Your task to perform on an android device: Open notification settings Image 0: 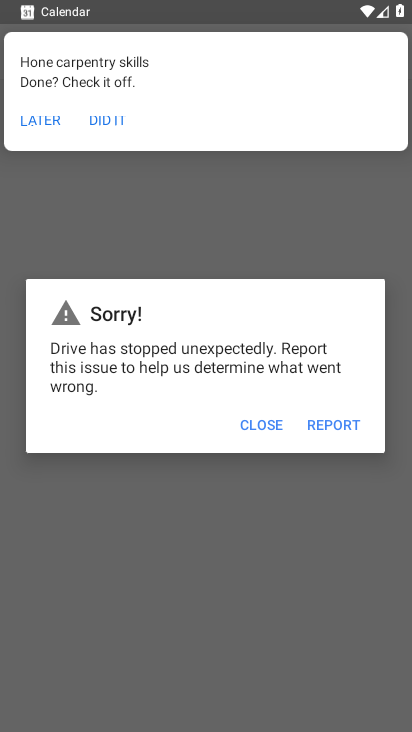
Step 0: press home button
Your task to perform on an android device: Open notification settings Image 1: 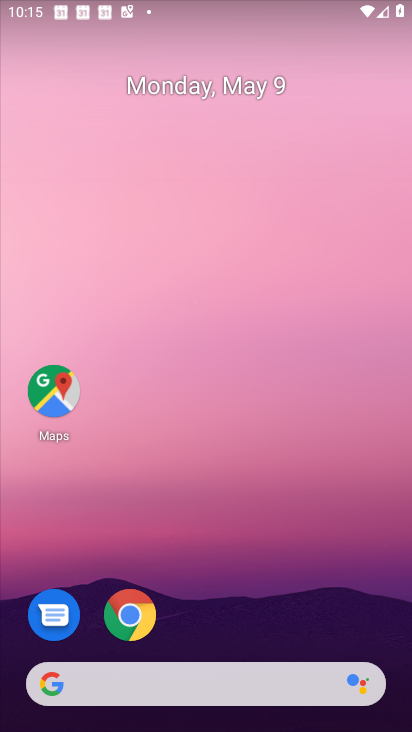
Step 1: drag from (218, 705) to (348, 243)
Your task to perform on an android device: Open notification settings Image 2: 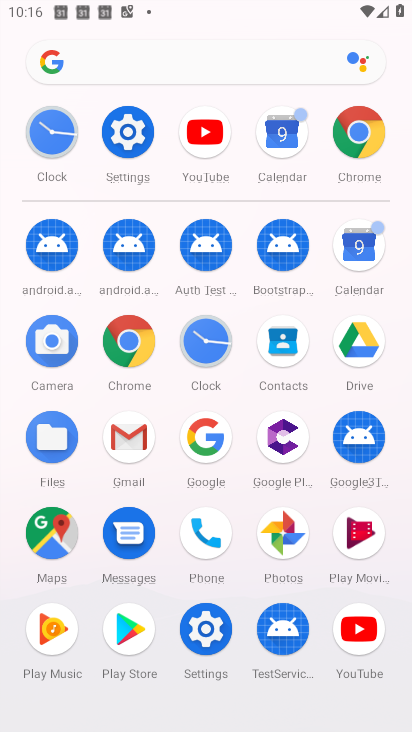
Step 2: click (134, 137)
Your task to perform on an android device: Open notification settings Image 3: 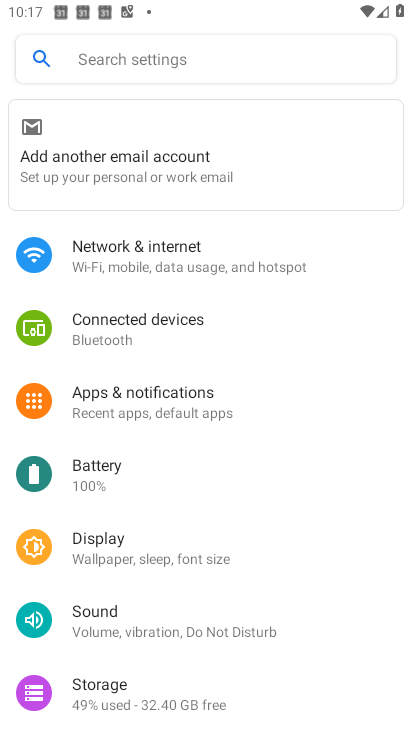
Step 3: click (181, 64)
Your task to perform on an android device: Open notification settings Image 4: 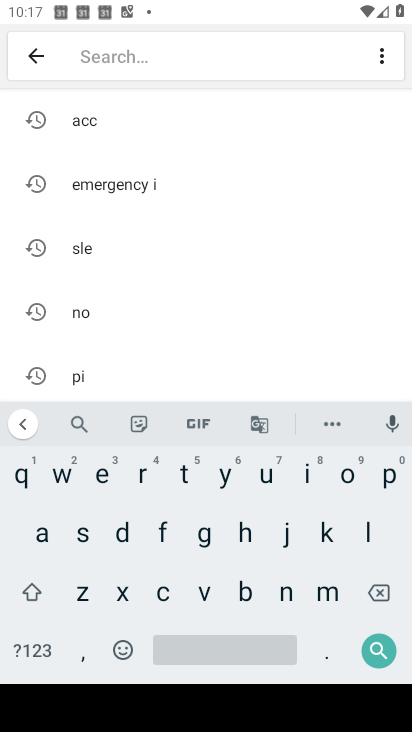
Step 4: click (283, 581)
Your task to perform on an android device: Open notification settings Image 5: 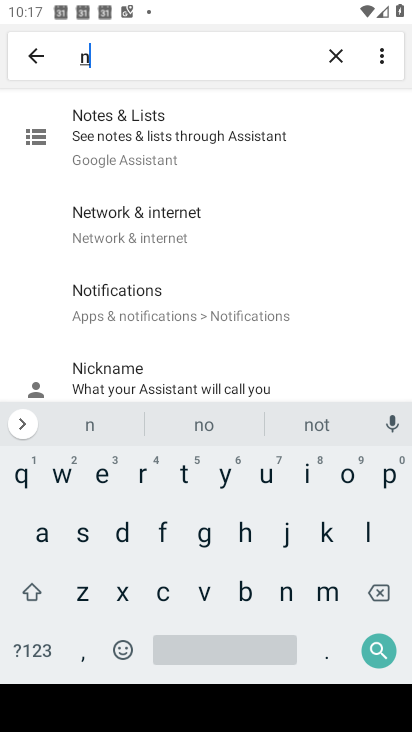
Step 5: click (186, 318)
Your task to perform on an android device: Open notification settings Image 6: 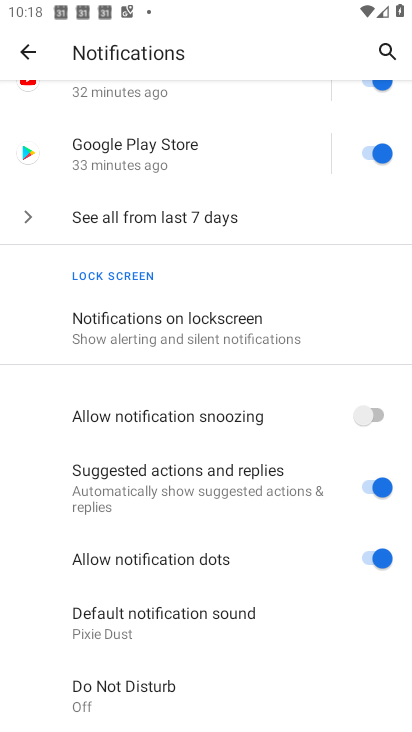
Step 6: click (92, 329)
Your task to perform on an android device: Open notification settings Image 7: 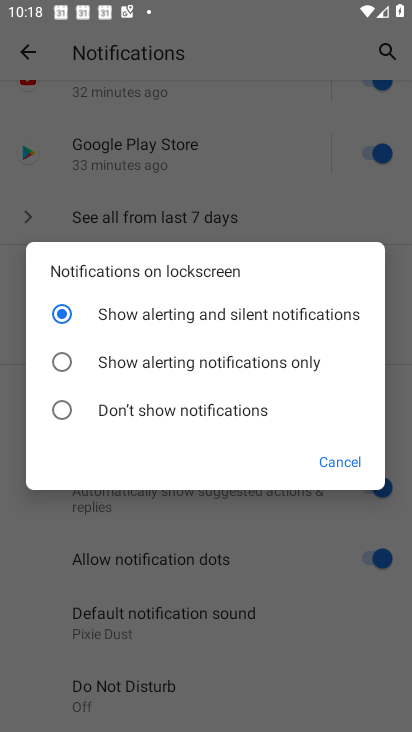
Step 7: task complete